Your task to perform on an android device: remove spam from my inbox in the gmail app Image 0: 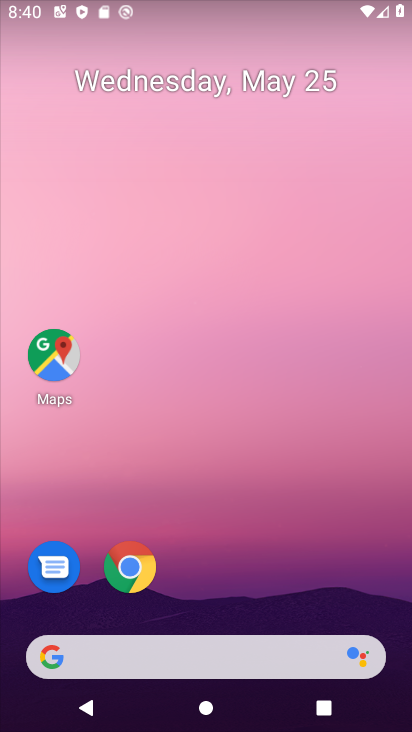
Step 0: drag from (294, 574) to (293, 13)
Your task to perform on an android device: remove spam from my inbox in the gmail app Image 1: 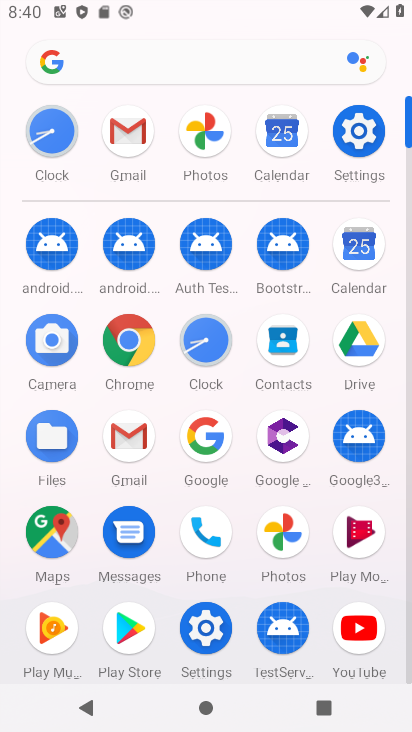
Step 1: click (141, 152)
Your task to perform on an android device: remove spam from my inbox in the gmail app Image 2: 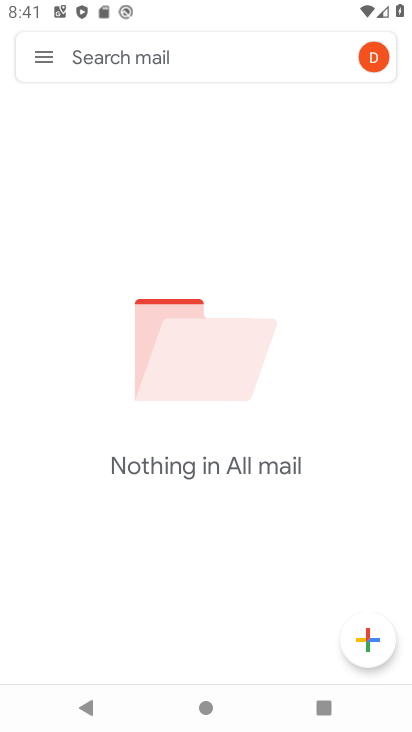
Step 2: task complete